Your task to perform on an android device: turn off improve location accuracy Image 0: 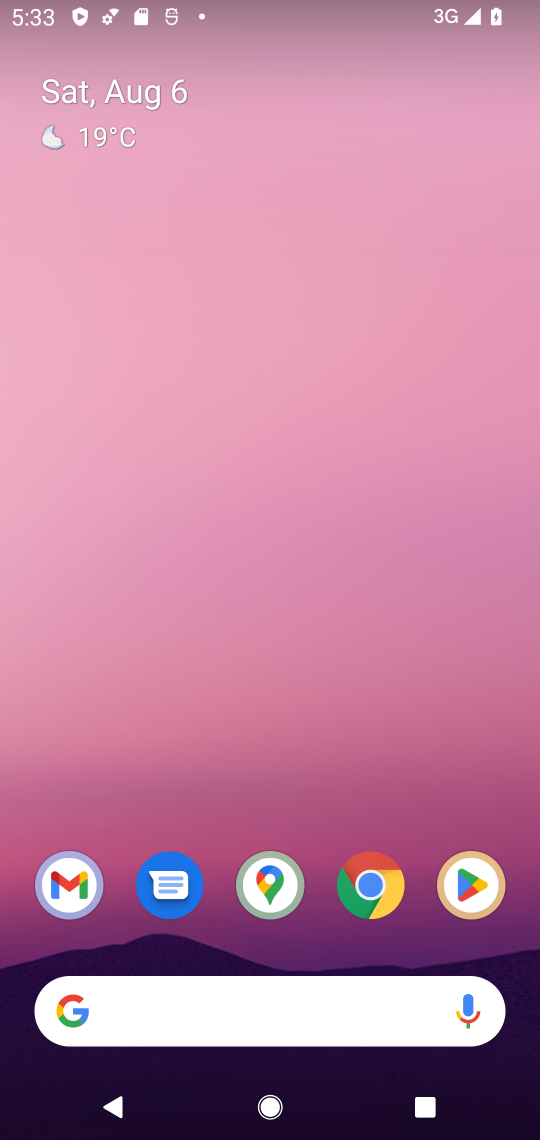
Step 0: drag from (437, 933) to (176, 54)
Your task to perform on an android device: turn off improve location accuracy Image 1: 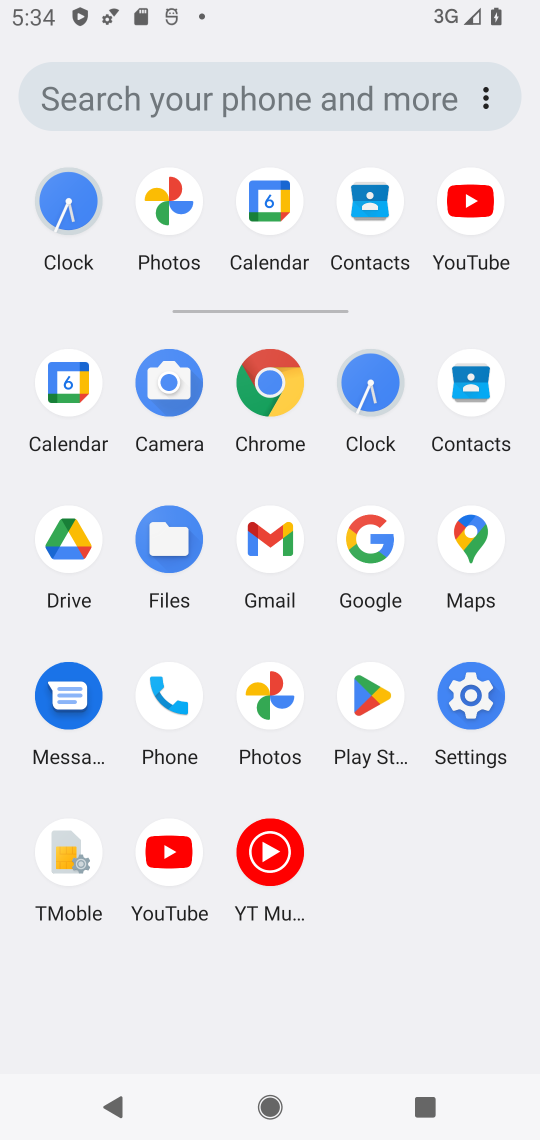
Step 1: click (477, 691)
Your task to perform on an android device: turn off improve location accuracy Image 2: 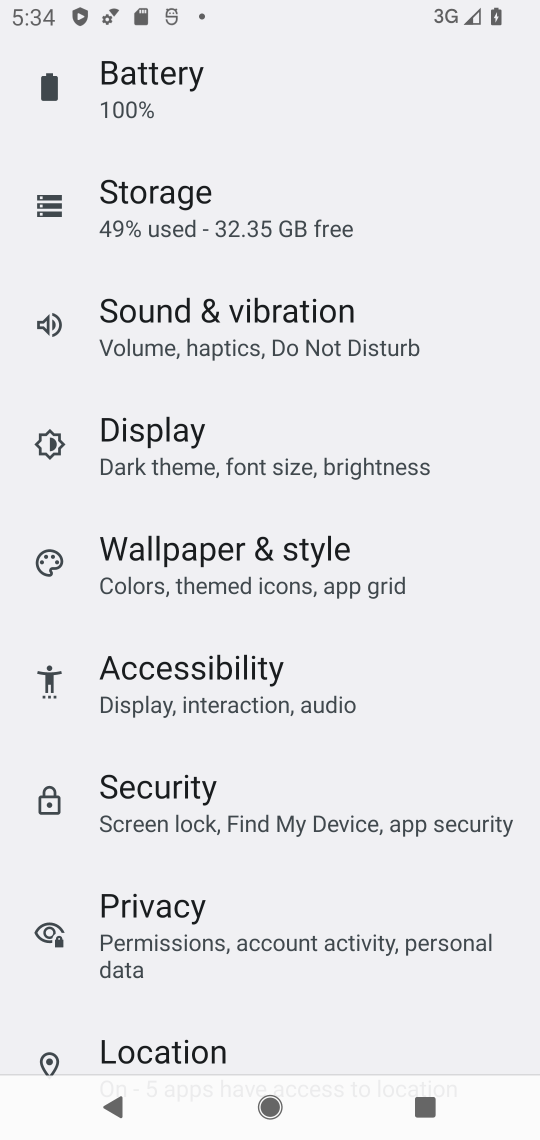
Step 2: click (146, 1072)
Your task to perform on an android device: turn off improve location accuracy Image 3: 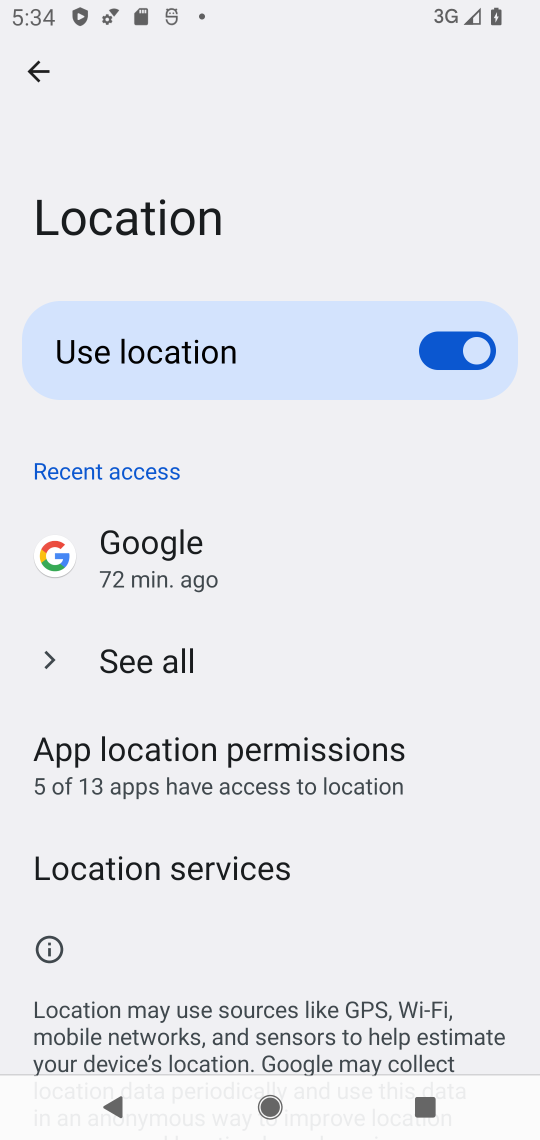
Step 3: click (223, 886)
Your task to perform on an android device: turn off improve location accuracy Image 4: 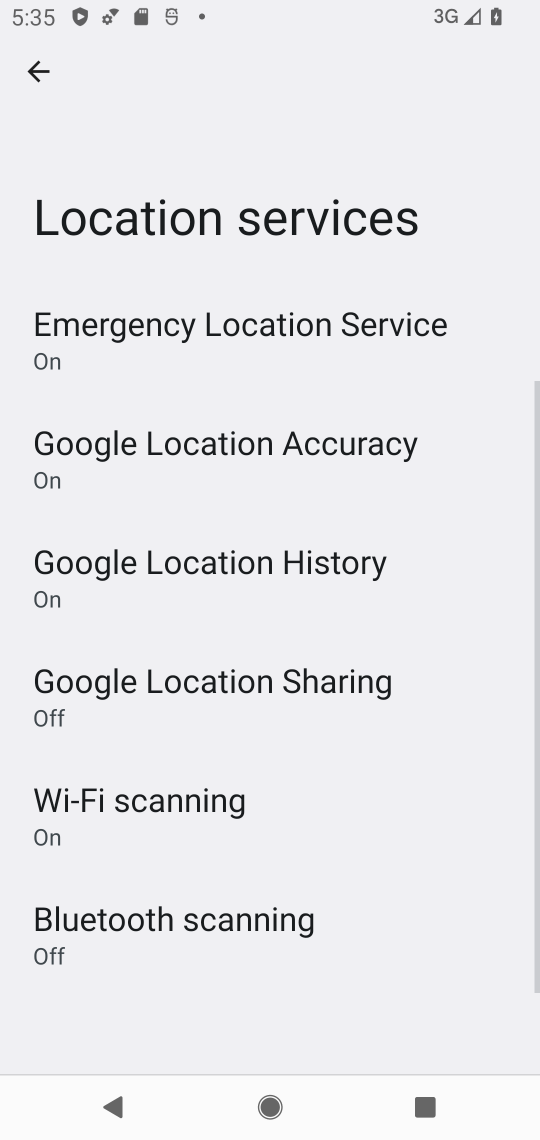
Step 4: click (306, 476)
Your task to perform on an android device: turn off improve location accuracy Image 5: 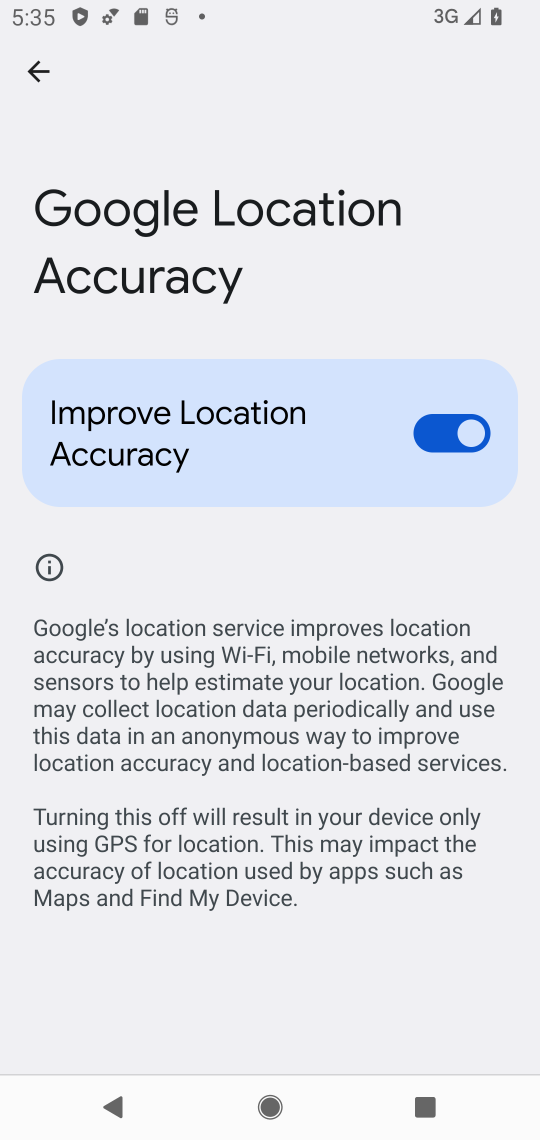
Step 5: click (460, 453)
Your task to perform on an android device: turn off improve location accuracy Image 6: 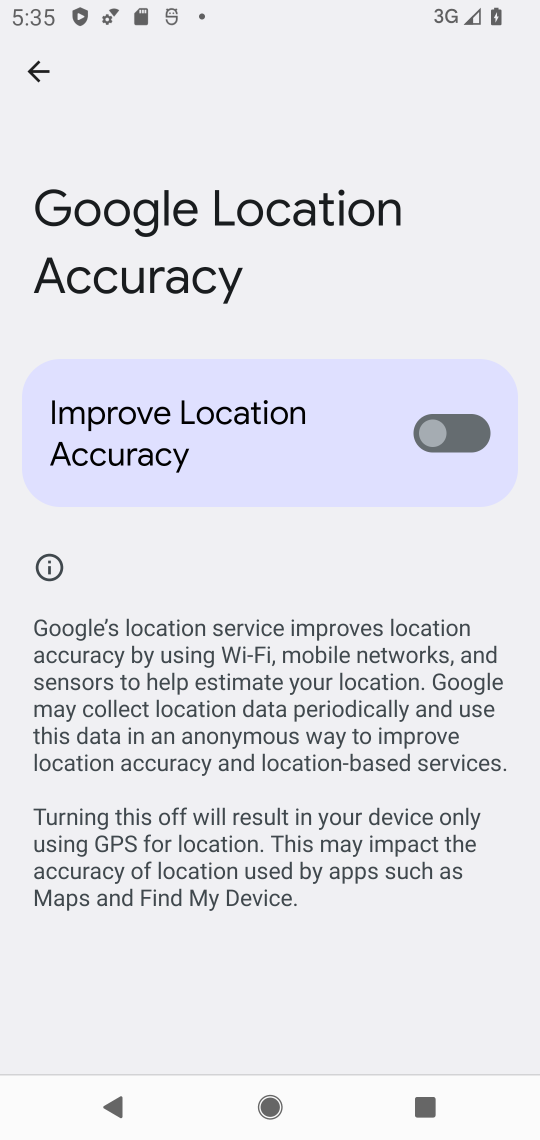
Step 6: task complete